Your task to perform on an android device: turn on showing notifications on the lock screen Image 0: 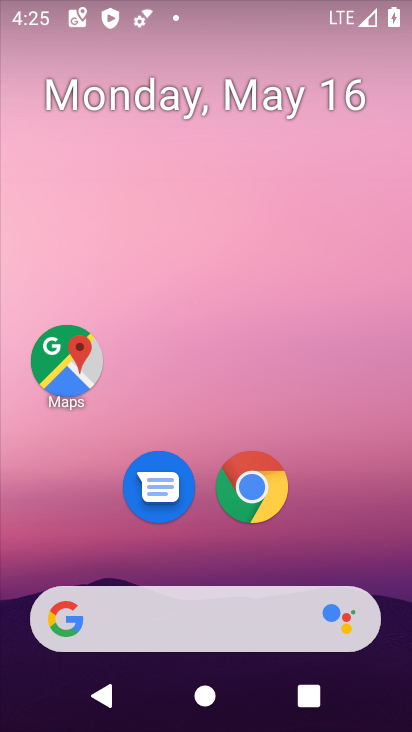
Step 0: drag from (402, 610) to (290, 83)
Your task to perform on an android device: turn on showing notifications on the lock screen Image 1: 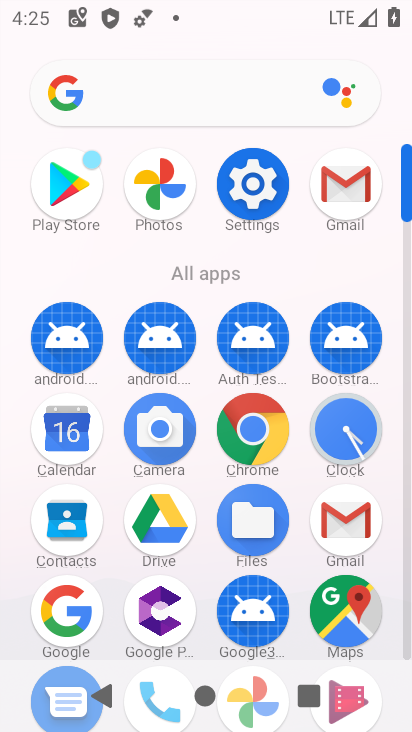
Step 1: click (408, 649)
Your task to perform on an android device: turn on showing notifications on the lock screen Image 2: 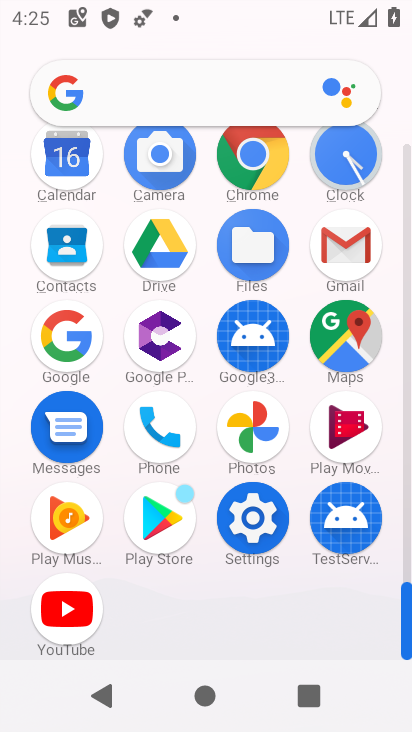
Step 2: click (256, 516)
Your task to perform on an android device: turn on showing notifications on the lock screen Image 3: 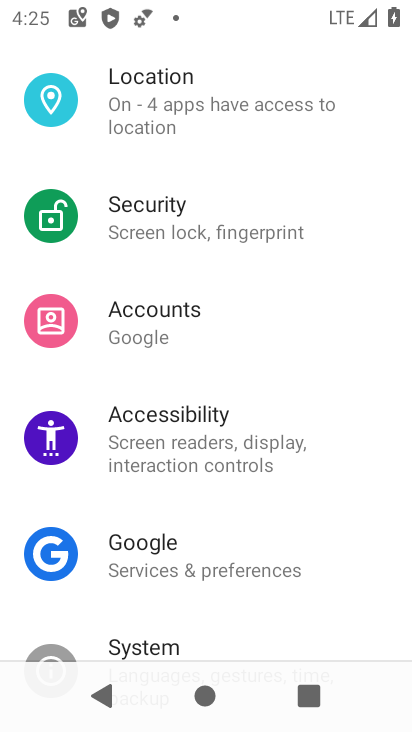
Step 3: drag from (362, 176) to (346, 483)
Your task to perform on an android device: turn on showing notifications on the lock screen Image 4: 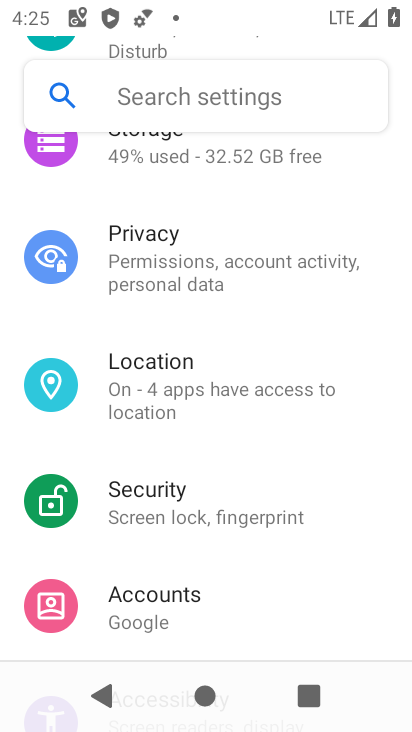
Step 4: drag from (378, 237) to (345, 537)
Your task to perform on an android device: turn on showing notifications on the lock screen Image 5: 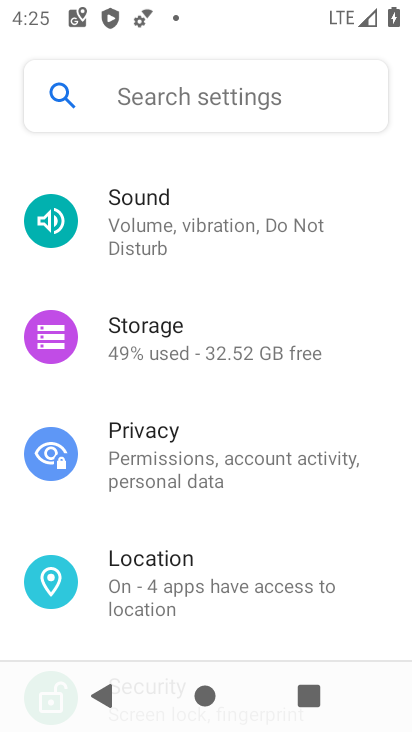
Step 5: drag from (362, 227) to (351, 513)
Your task to perform on an android device: turn on showing notifications on the lock screen Image 6: 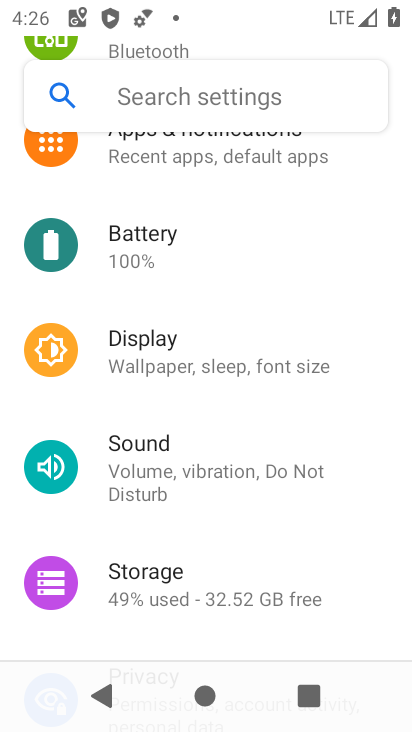
Step 6: drag from (336, 236) to (339, 488)
Your task to perform on an android device: turn on showing notifications on the lock screen Image 7: 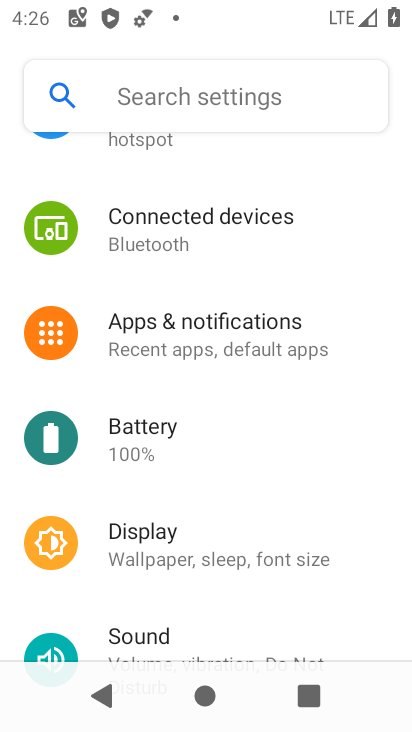
Step 7: click (152, 320)
Your task to perform on an android device: turn on showing notifications on the lock screen Image 8: 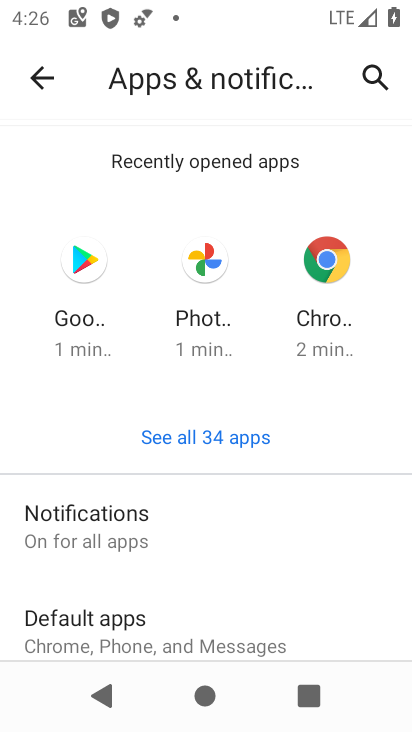
Step 8: click (102, 510)
Your task to perform on an android device: turn on showing notifications on the lock screen Image 9: 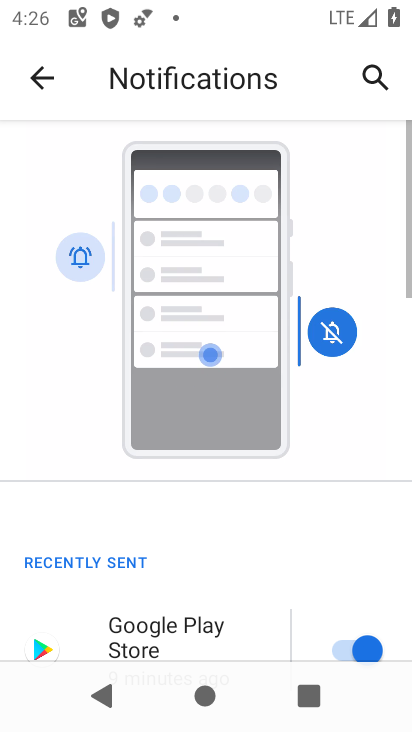
Step 9: drag from (290, 629) to (203, 123)
Your task to perform on an android device: turn on showing notifications on the lock screen Image 10: 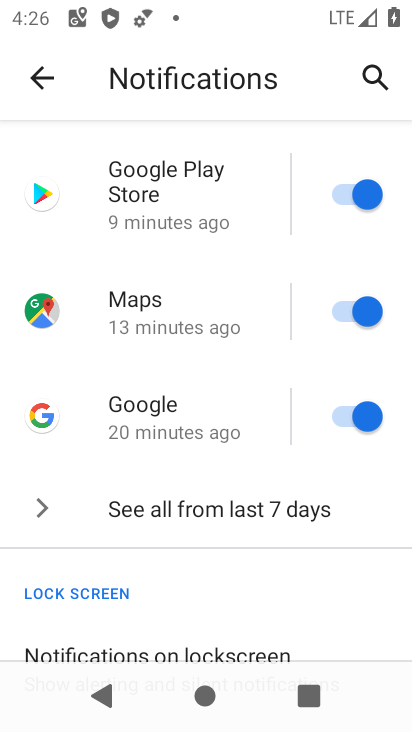
Step 10: drag from (274, 572) to (250, 181)
Your task to perform on an android device: turn on showing notifications on the lock screen Image 11: 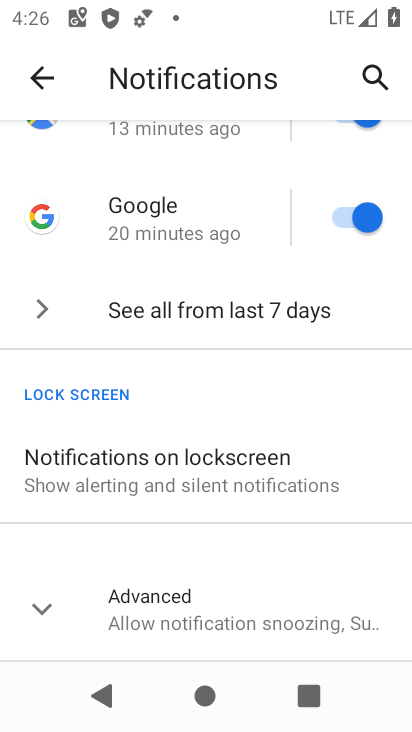
Step 11: click (141, 469)
Your task to perform on an android device: turn on showing notifications on the lock screen Image 12: 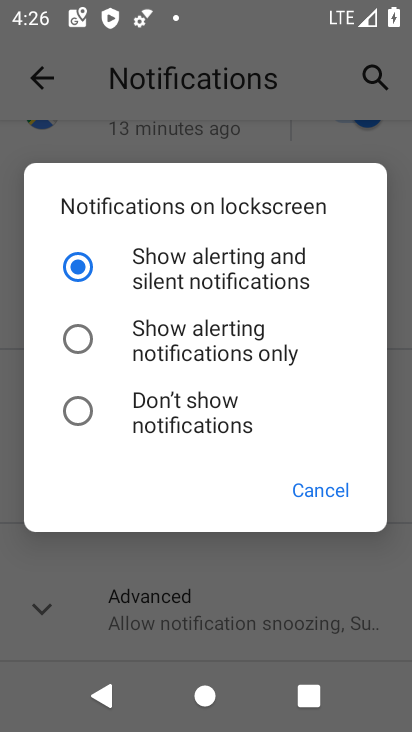
Step 12: task complete